Your task to perform on an android device: change the clock display to show seconds Image 0: 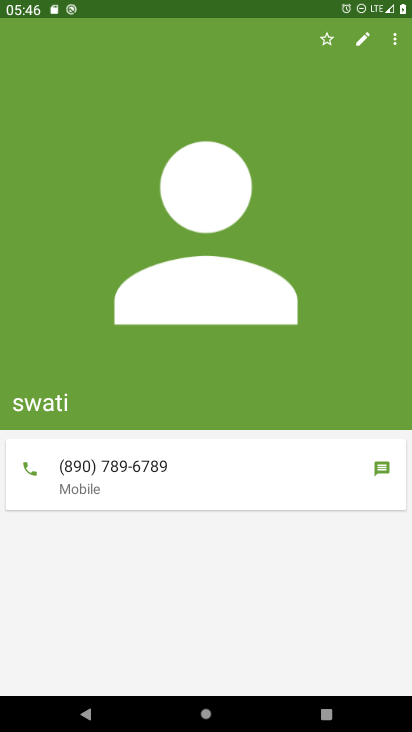
Step 0: press home button
Your task to perform on an android device: change the clock display to show seconds Image 1: 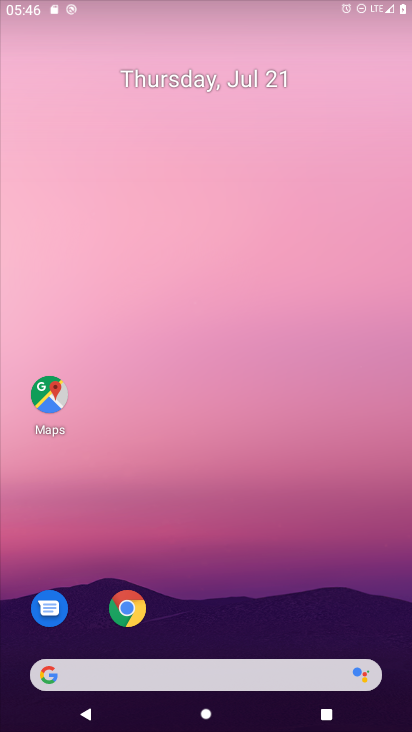
Step 1: drag from (252, 600) to (295, 16)
Your task to perform on an android device: change the clock display to show seconds Image 2: 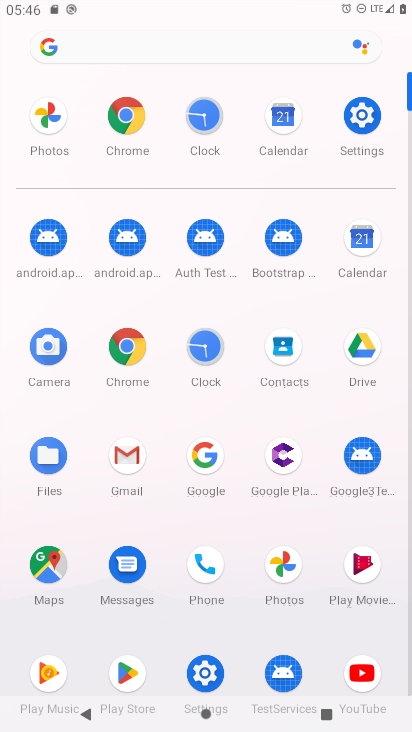
Step 2: click (201, 351)
Your task to perform on an android device: change the clock display to show seconds Image 3: 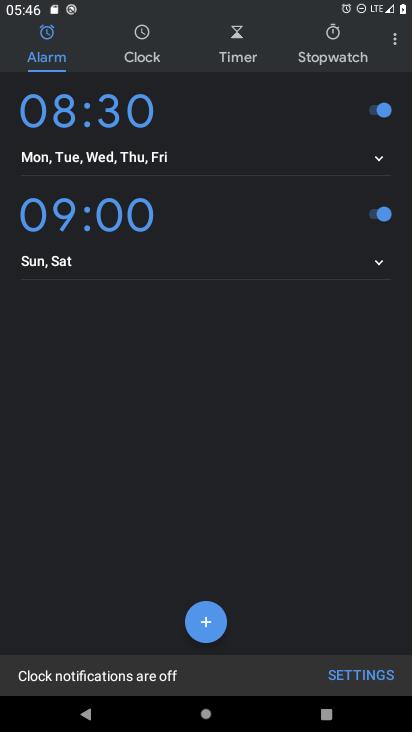
Step 3: click (390, 32)
Your task to perform on an android device: change the clock display to show seconds Image 4: 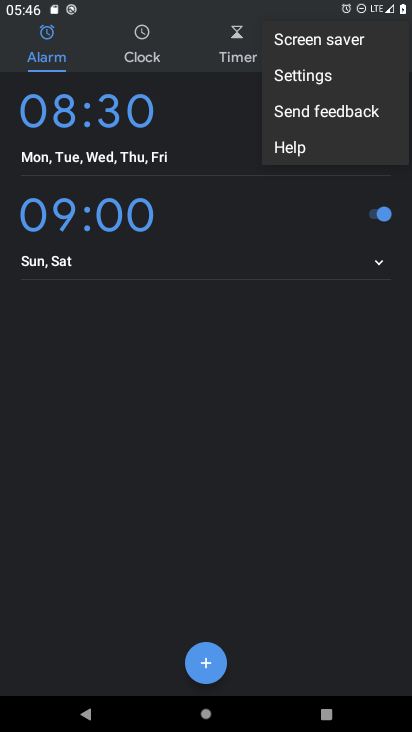
Step 4: click (343, 83)
Your task to perform on an android device: change the clock display to show seconds Image 5: 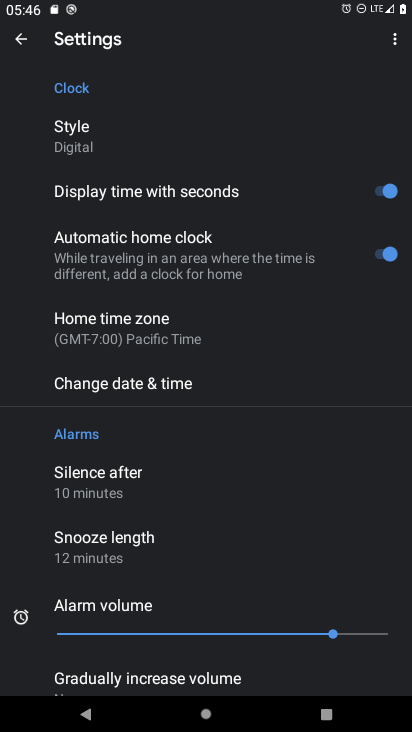
Step 5: task complete